Your task to perform on an android device: clear all cookies in the chrome app Image 0: 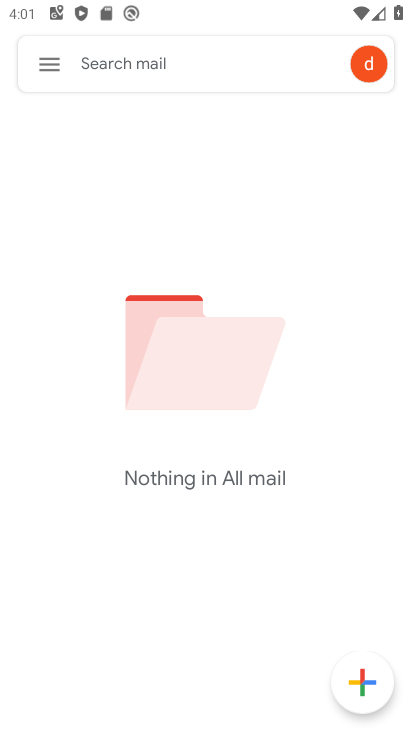
Step 0: press home button
Your task to perform on an android device: clear all cookies in the chrome app Image 1: 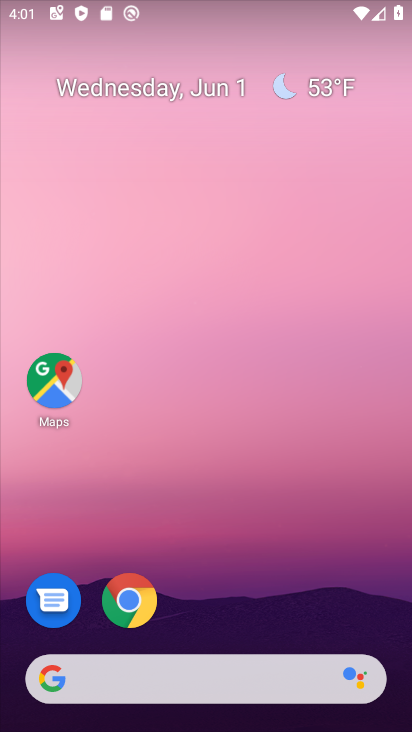
Step 1: click (126, 601)
Your task to perform on an android device: clear all cookies in the chrome app Image 2: 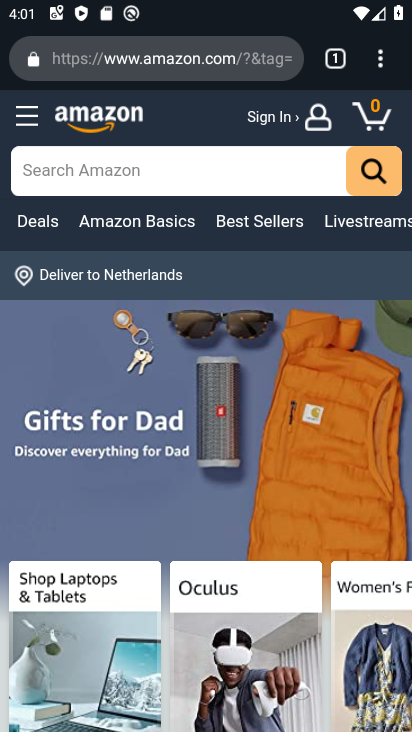
Step 2: click (378, 68)
Your task to perform on an android device: clear all cookies in the chrome app Image 3: 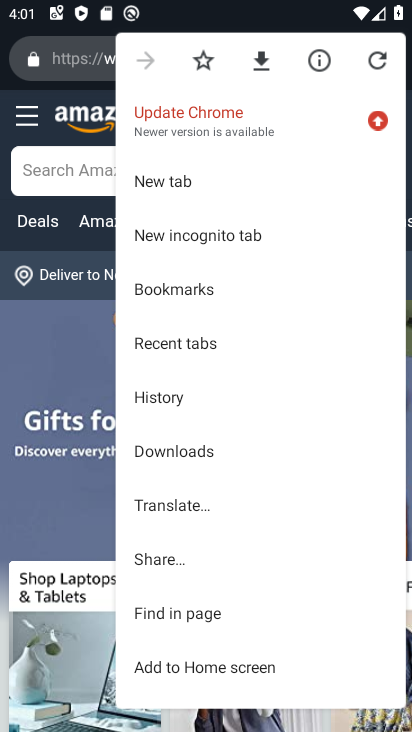
Step 3: click (161, 405)
Your task to perform on an android device: clear all cookies in the chrome app Image 4: 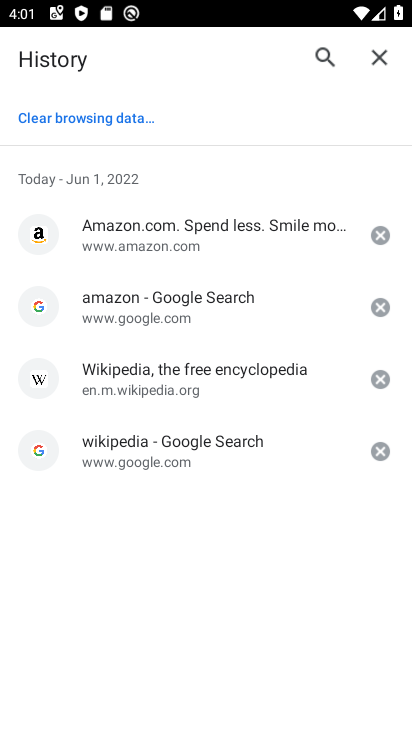
Step 4: click (74, 122)
Your task to perform on an android device: clear all cookies in the chrome app Image 5: 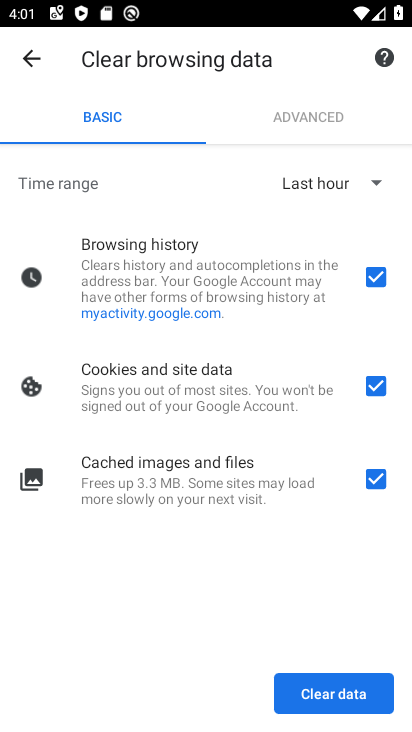
Step 5: click (373, 280)
Your task to perform on an android device: clear all cookies in the chrome app Image 6: 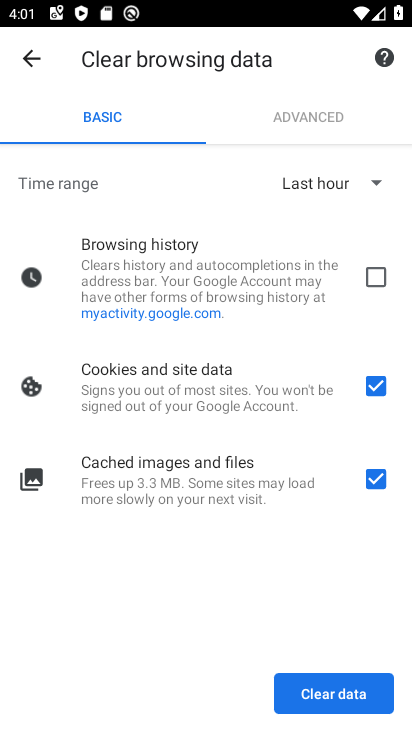
Step 6: click (370, 477)
Your task to perform on an android device: clear all cookies in the chrome app Image 7: 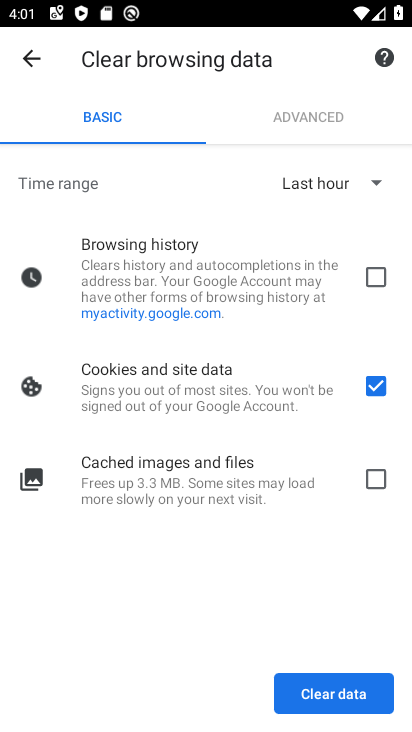
Step 7: click (333, 695)
Your task to perform on an android device: clear all cookies in the chrome app Image 8: 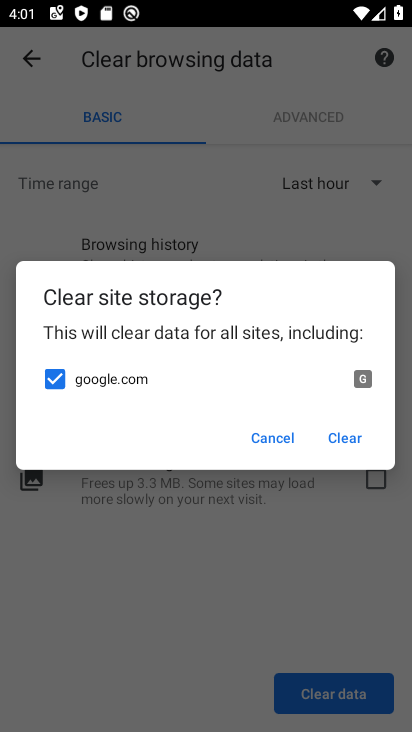
Step 8: click (347, 434)
Your task to perform on an android device: clear all cookies in the chrome app Image 9: 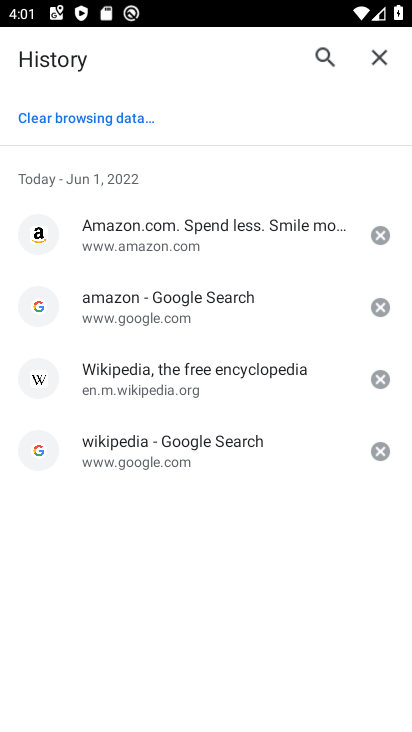
Step 9: task complete